Your task to perform on an android device: Go to battery settings Image 0: 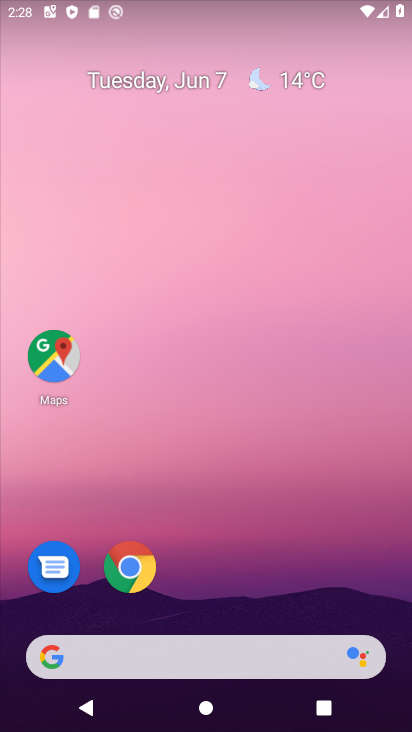
Step 0: drag from (216, 608) to (198, 199)
Your task to perform on an android device: Go to battery settings Image 1: 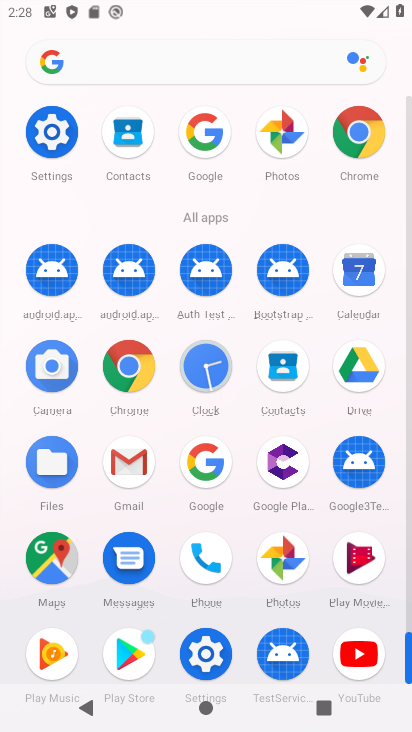
Step 1: click (55, 134)
Your task to perform on an android device: Go to battery settings Image 2: 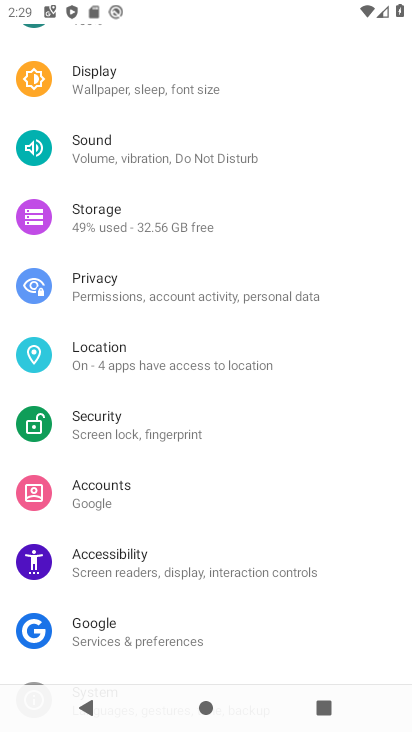
Step 2: drag from (182, 213) to (192, 557)
Your task to perform on an android device: Go to battery settings Image 3: 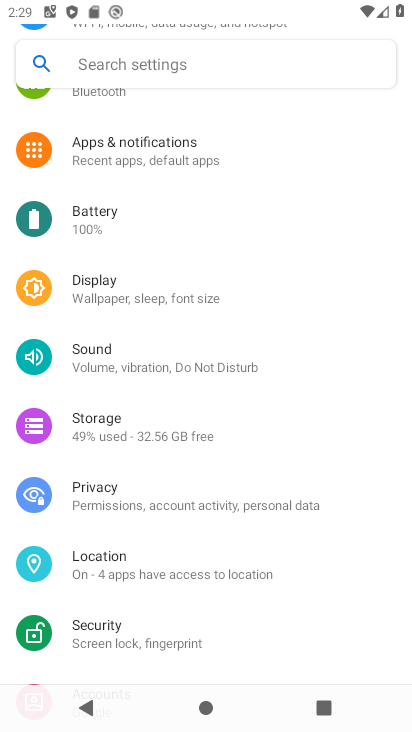
Step 3: click (124, 221)
Your task to perform on an android device: Go to battery settings Image 4: 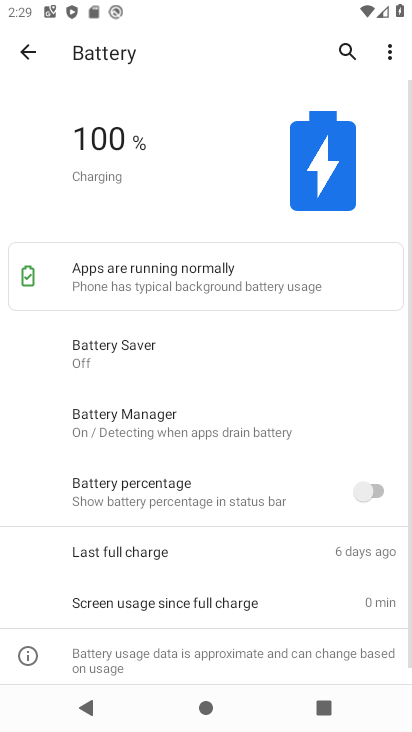
Step 4: task complete